Your task to perform on an android device: Open notification settings Image 0: 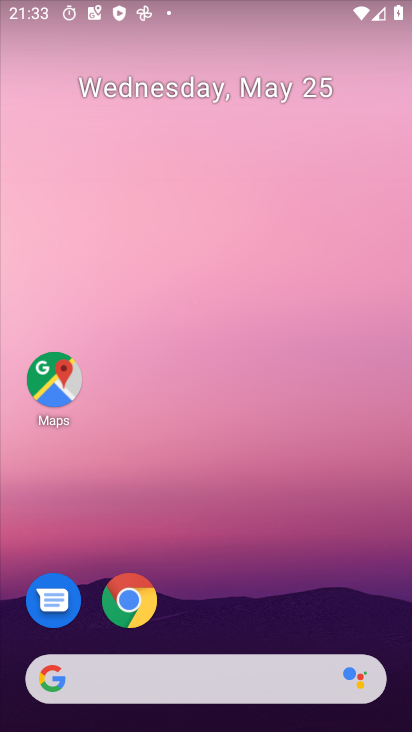
Step 0: drag from (367, 602) to (309, 119)
Your task to perform on an android device: Open notification settings Image 1: 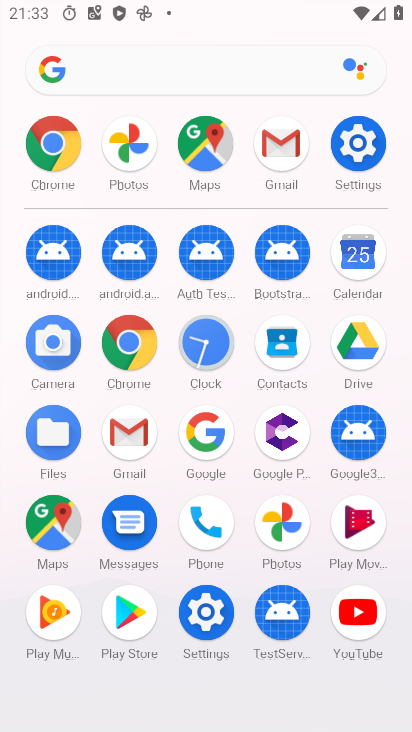
Step 1: click (227, 628)
Your task to perform on an android device: Open notification settings Image 2: 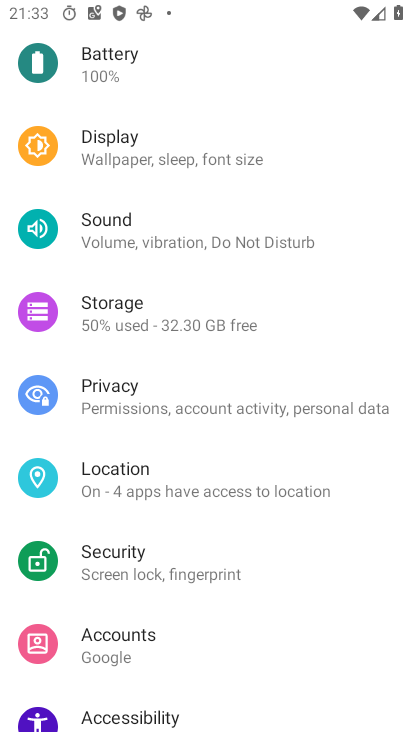
Step 2: drag from (238, 225) to (152, 614)
Your task to perform on an android device: Open notification settings Image 3: 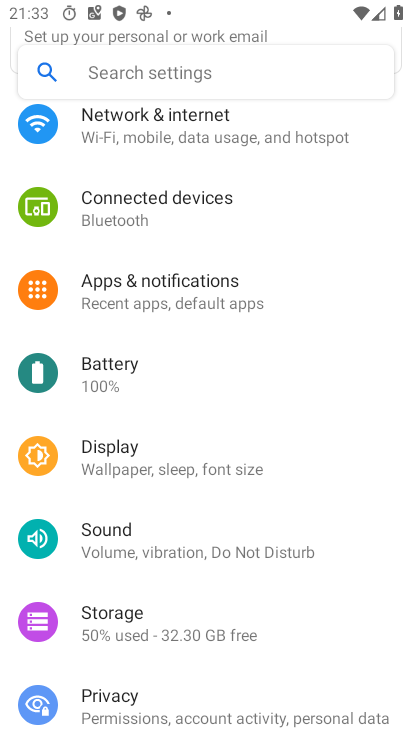
Step 3: click (173, 293)
Your task to perform on an android device: Open notification settings Image 4: 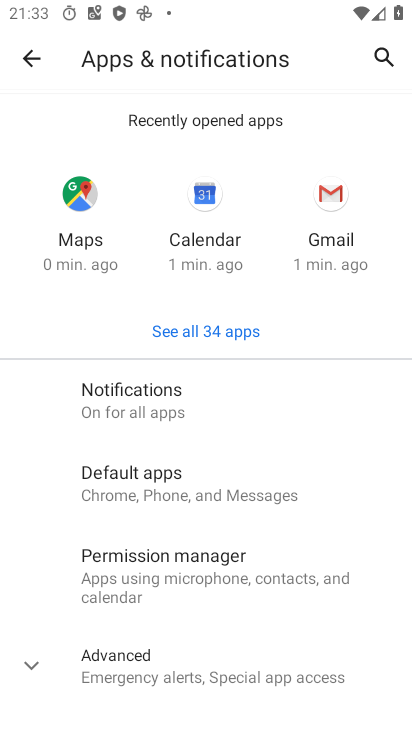
Step 4: click (144, 396)
Your task to perform on an android device: Open notification settings Image 5: 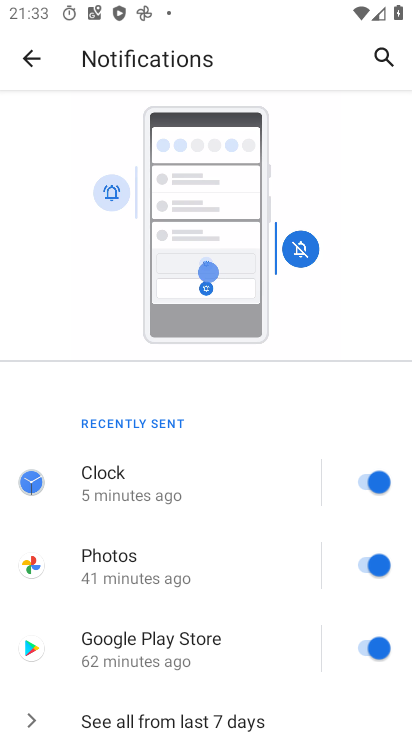
Step 5: task complete